Your task to perform on an android device: all mails in gmail Image 0: 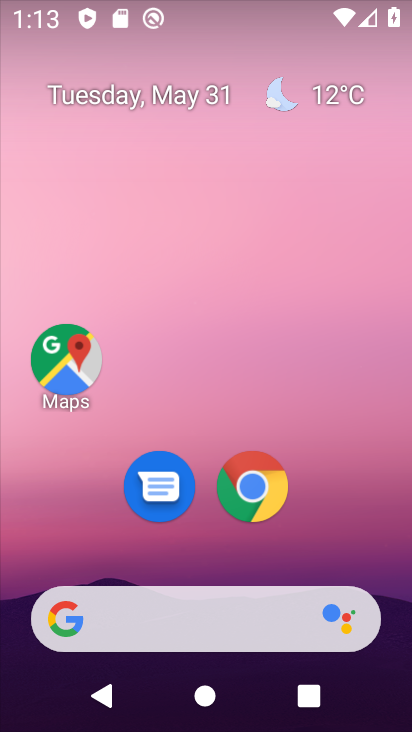
Step 0: drag from (189, 512) to (213, 100)
Your task to perform on an android device: all mails in gmail Image 1: 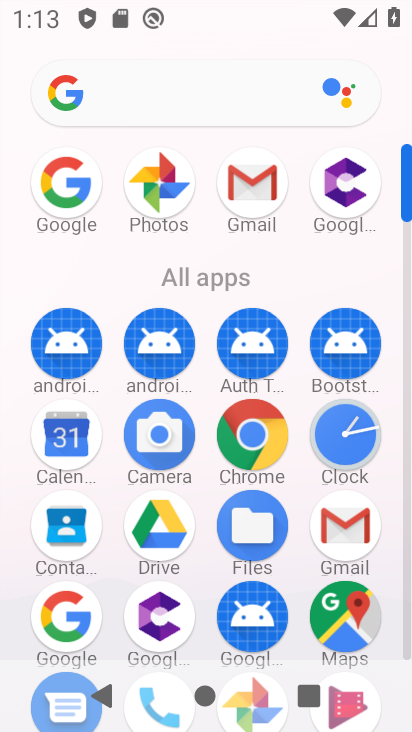
Step 1: click (339, 547)
Your task to perform on an android device: all mails in gmail Image 2: 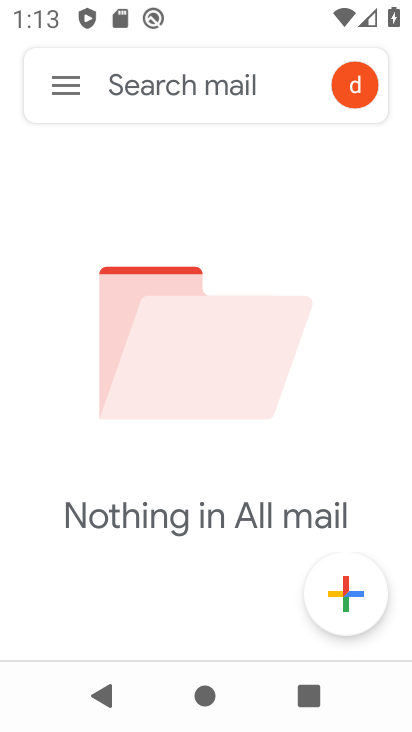
Step 2: click (61, 86)
Your task to perform on an android device: all mails in gmail Image 3: 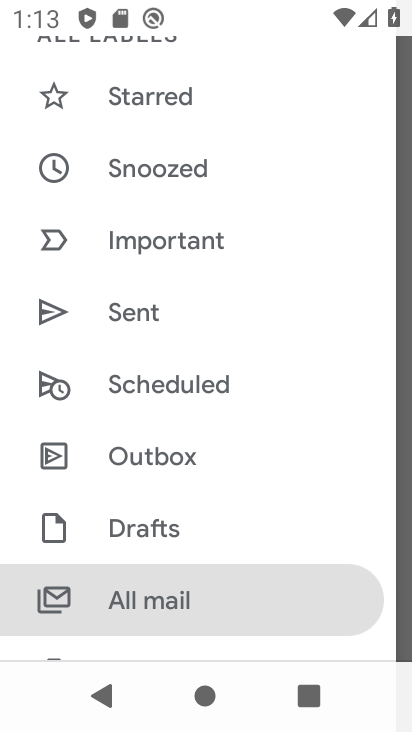
Step 3: click (143, 609)
Your task to perform on an android device: all mails in gmail Image 4: 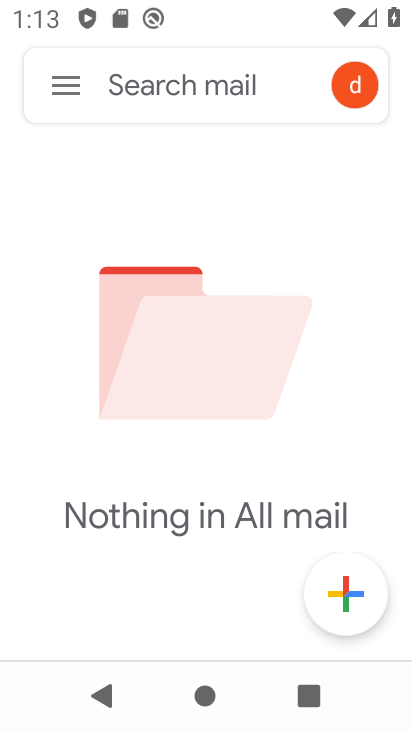
Step 4: task complete